Your task to perform on an android device: turn off sleep mode Image 0: 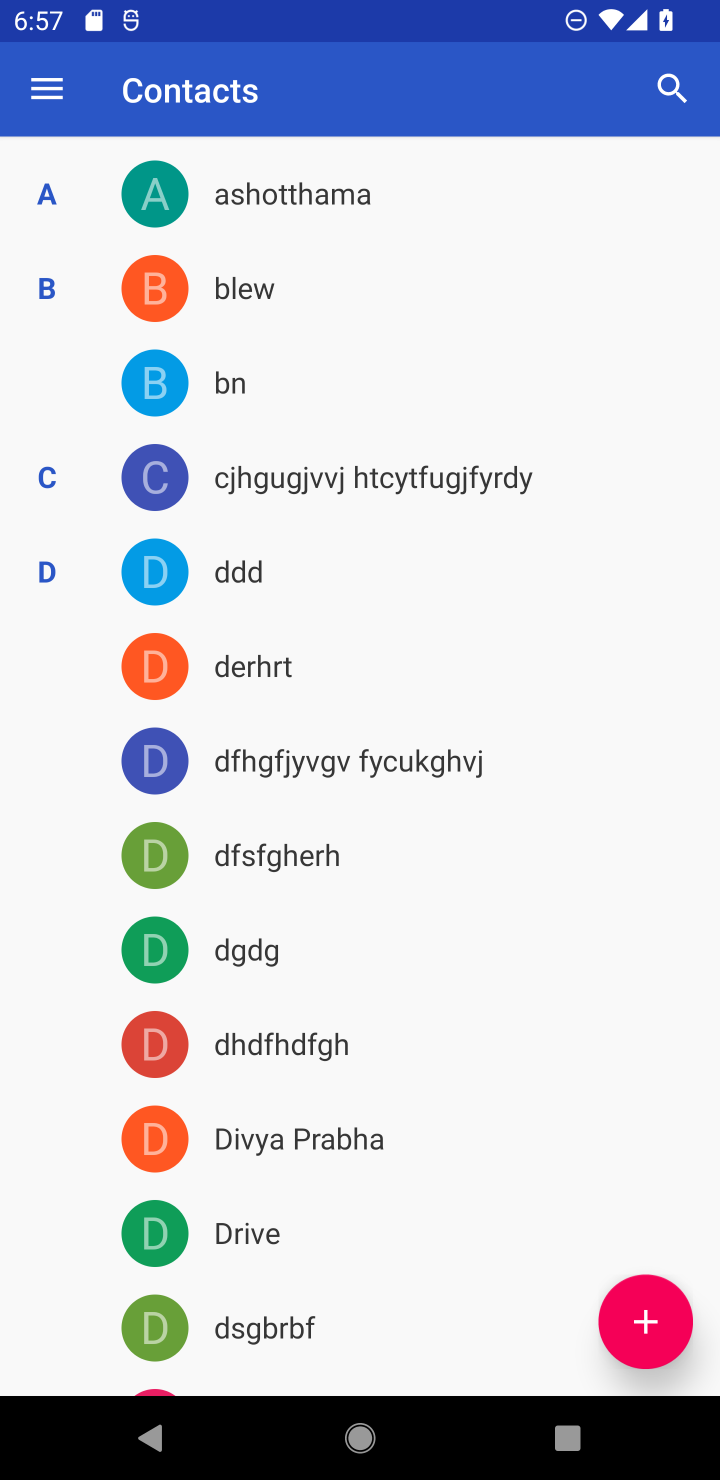
Step 0: press home button
Your task to perform on an android device: turn off sleep mode Image 1: 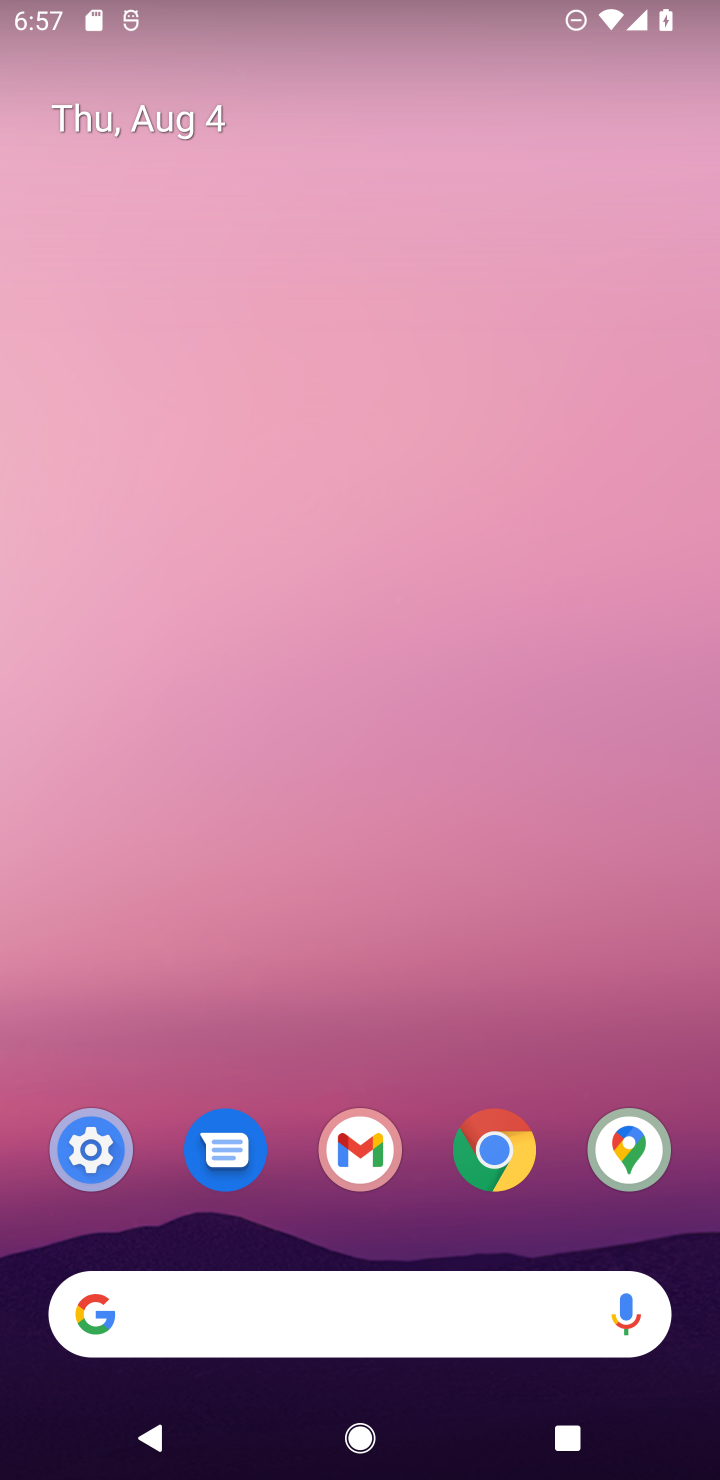
Step 1: drag from (313, 1303) to (488, 90)
Your task to perform on an android device: turn off sleep mode Image 2: 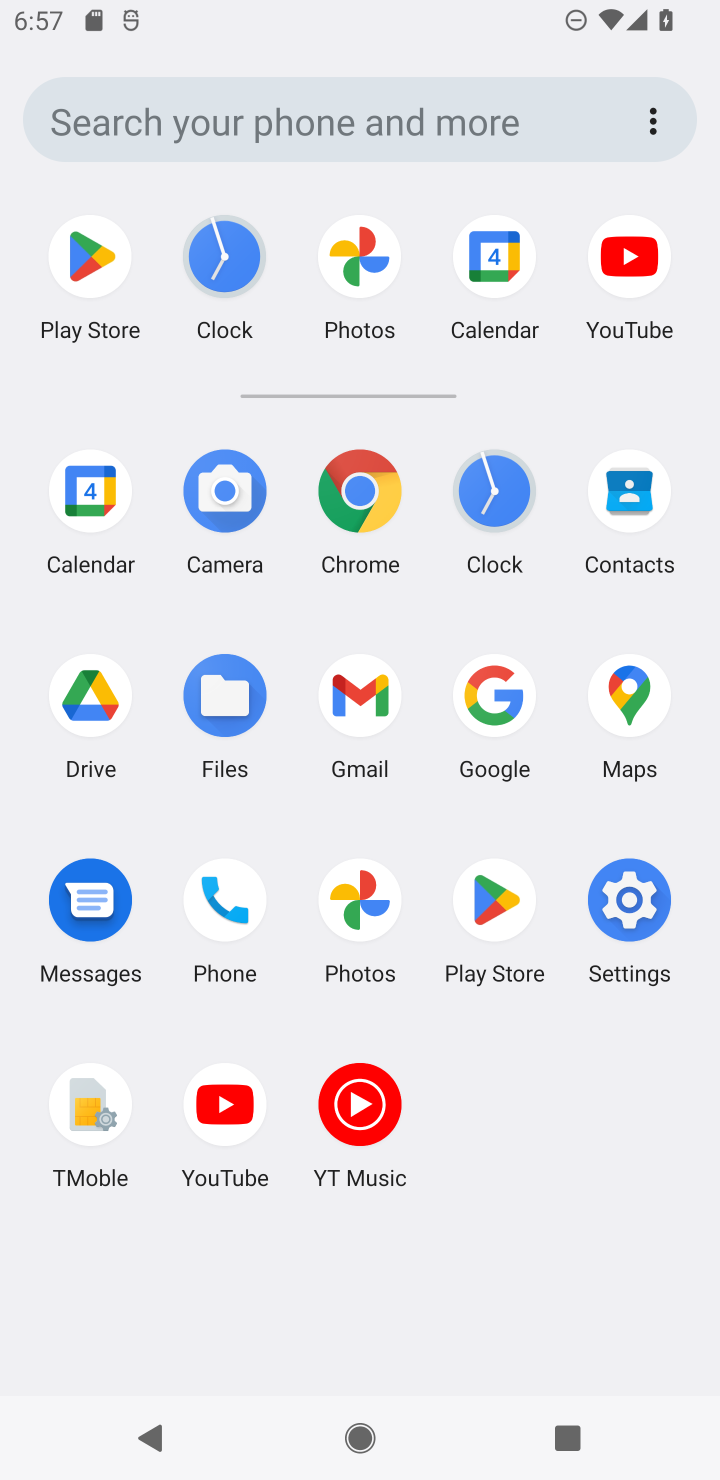
Step 2: click (628, 882)
Your task to perform on an android device: turn off sleep mode Image 3: 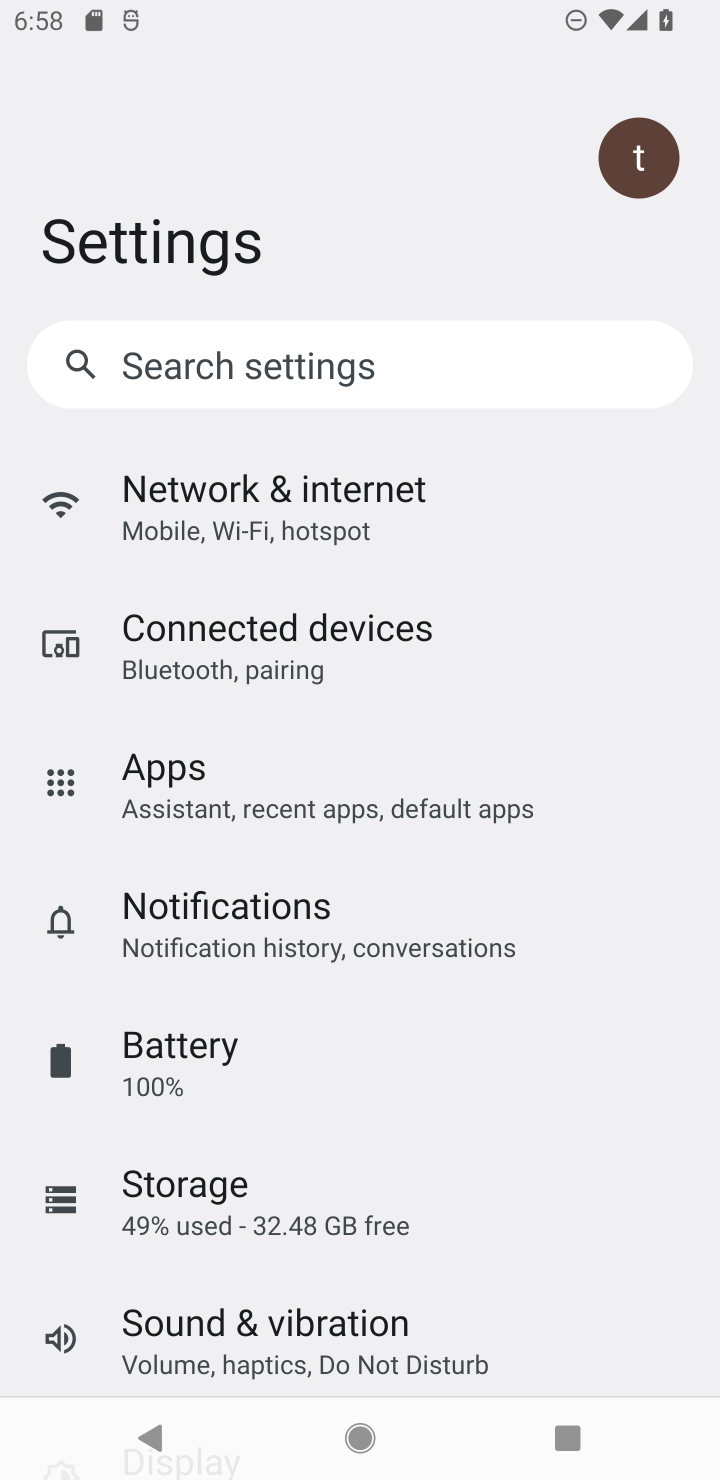
Step 3: task complete